Your task to perform on an android device: Go to location settings Image 0: 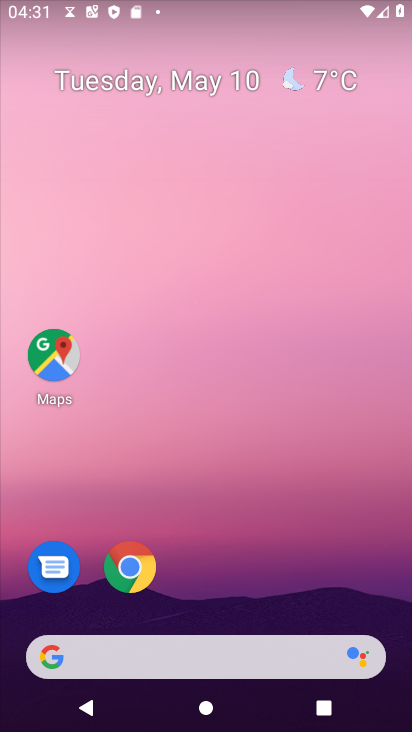
Step 0: drag from (241, 576) to (199, 108)
Your task to perform on an android device: Go to location settings Image 1: 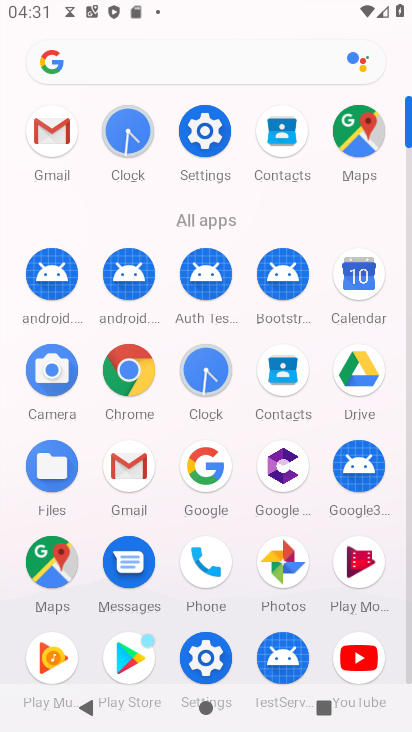
Step 1: click (203, 131)
Your task to perform on an android device: Go to location settings Image 2: 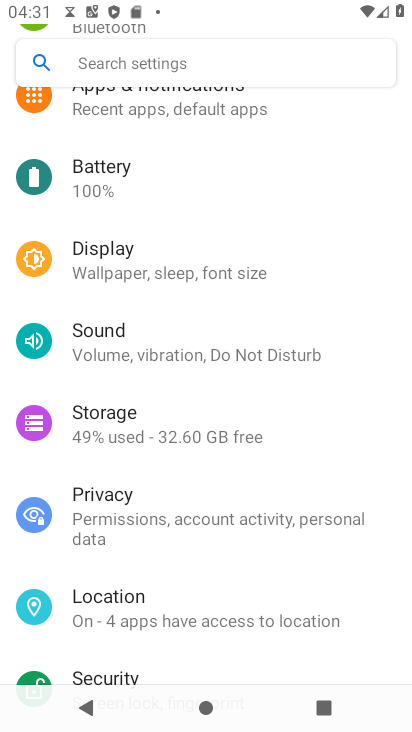
Step 2: drag from (150, 476) to (195, 307)
Your task to perform on an android device: Go to location settings Image 3: 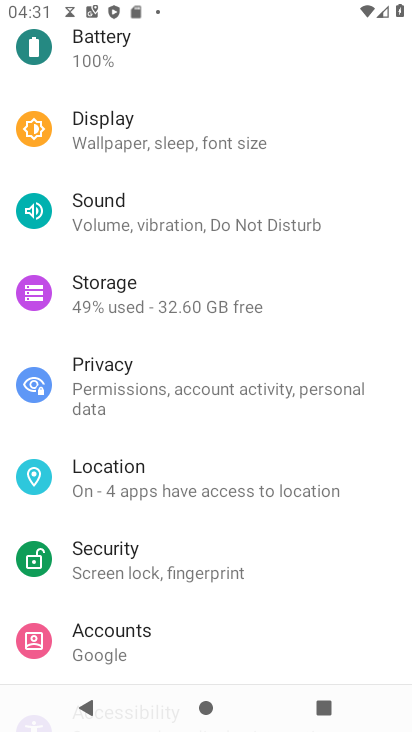
Step 3: click (132, 472)
Your task to perform on an android device: Go to location settings Image 4: 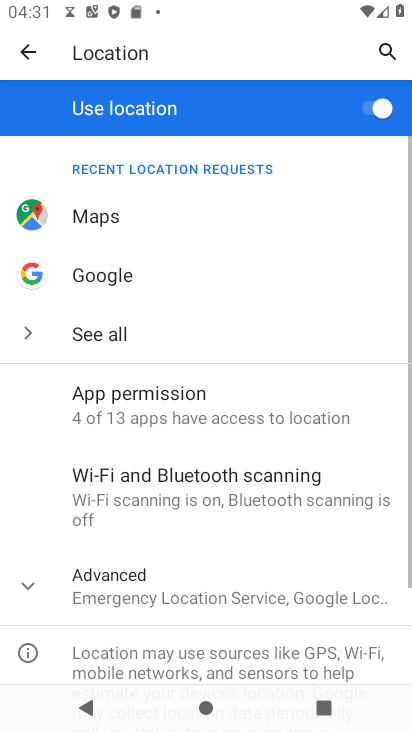
Step 4: task complete